Your task to perform on an android device: install app "Speedtest by Ookla" Image 0: 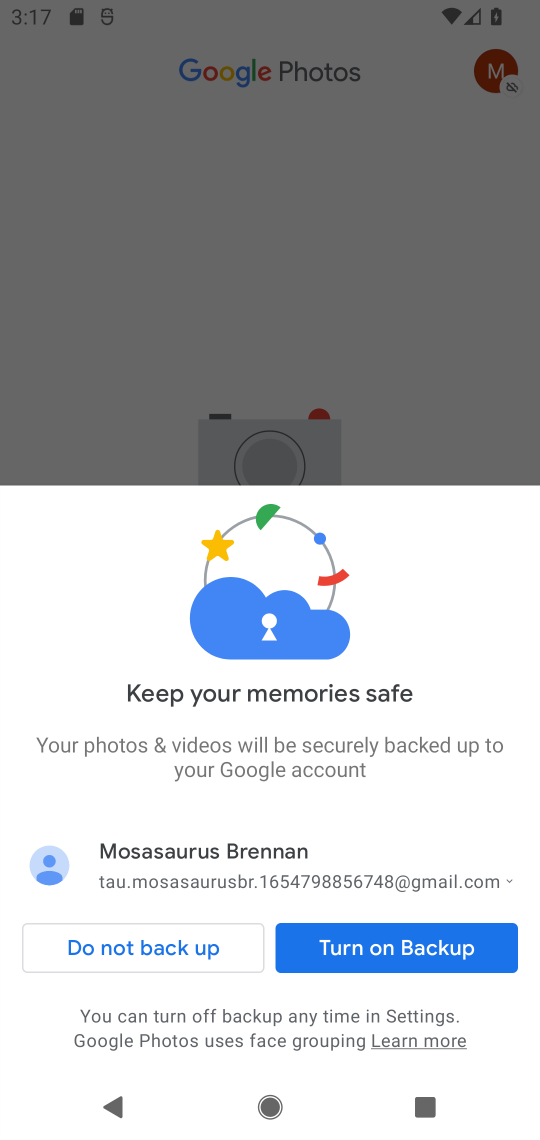
Step 0: press home button
Your task to perform on an android device: install app "Speedtest by Ookla" Image 1: 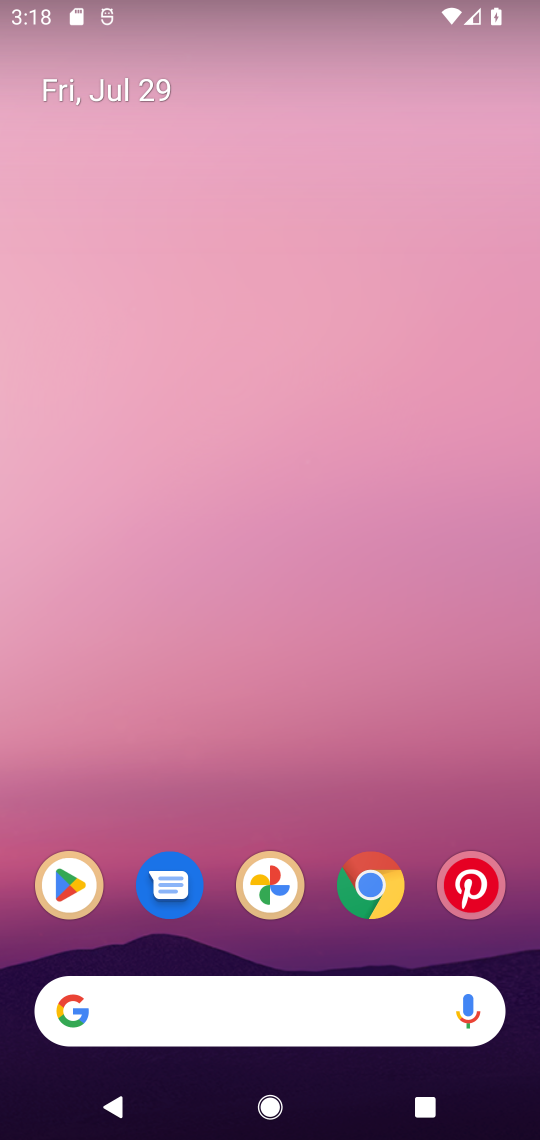
Step 1: click (49, 875)
Your task to perform on an android device: install app "Speedtest by Ookla" Image 2: 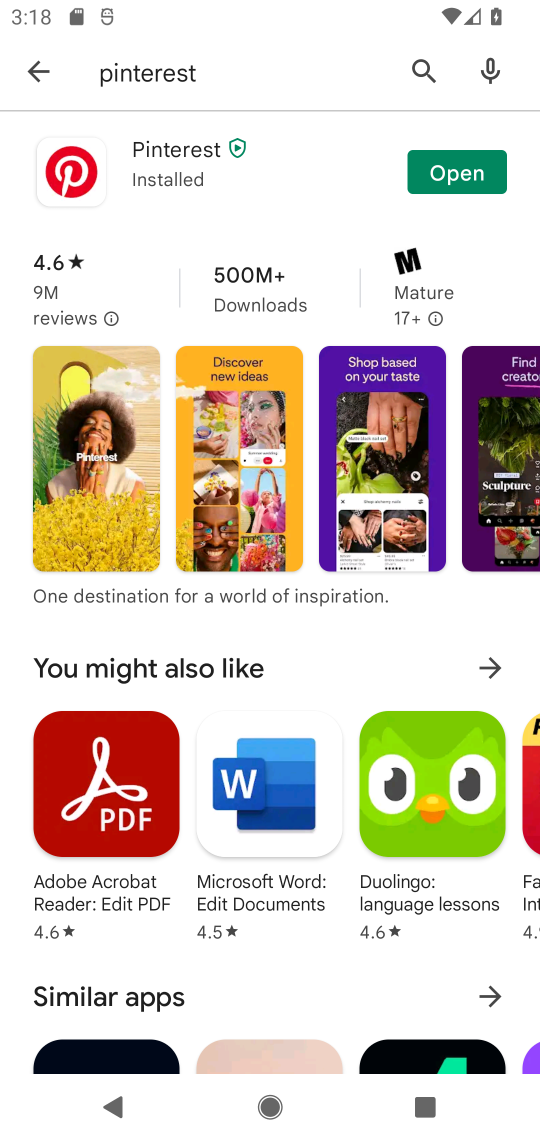
Step 2: click (419, 67)
Your task to perform on an android device: install app "Speedtest by Ookla" Image 3: 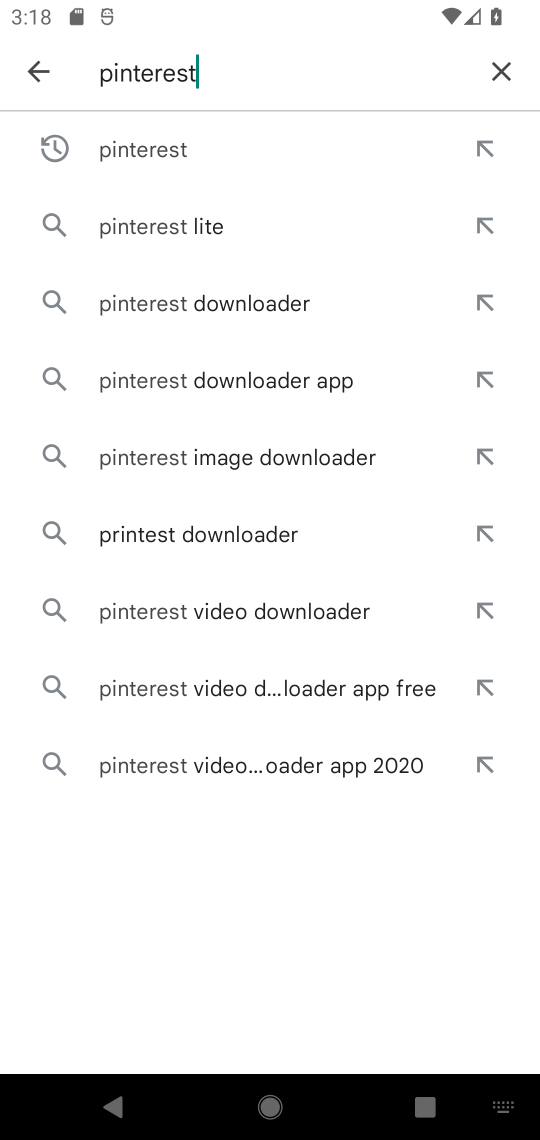
Step 3: click (502, 70)
Your task to perform on an android device: install app "Speedtest by Ookla" Image 4: 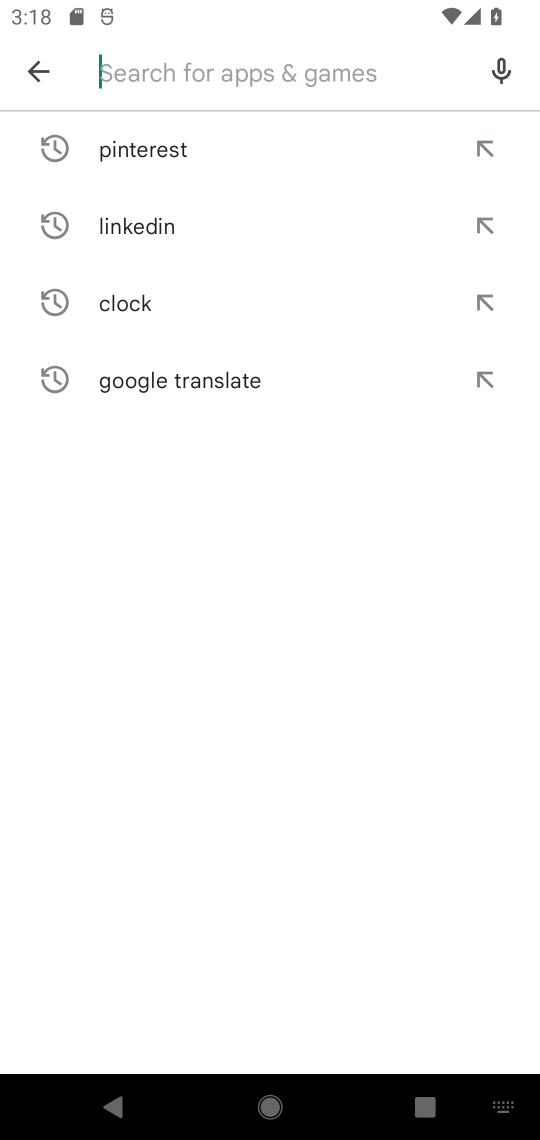
Step 4: click (411, 84)
Your task to perform on an android device: install app "Speedtest by Ookla" Image 5: 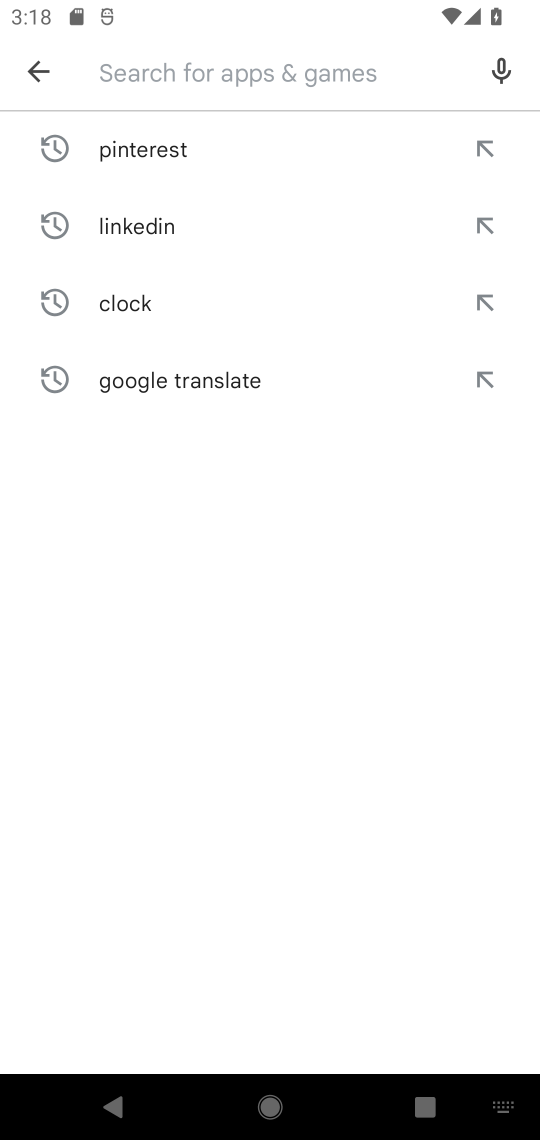
Step 5: type "Speedtest by Ookla"
Your task to perform on an android device: install app "Speedtest by Ookla" Image 6: 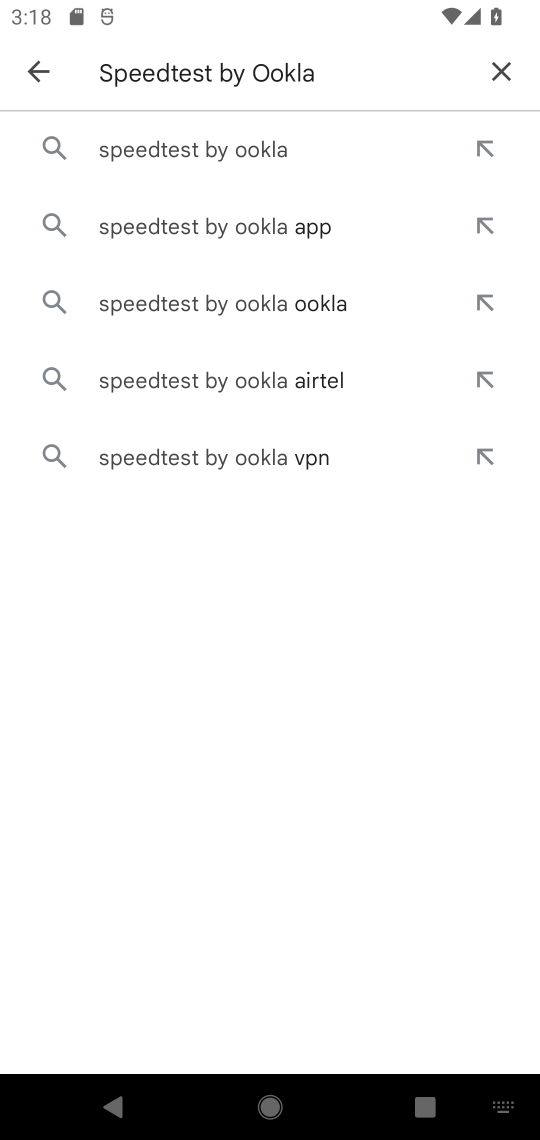
Step 6: click (256, 156)
Your task to perform on an android device: install app "Speedtest by Ookla" Image 7: 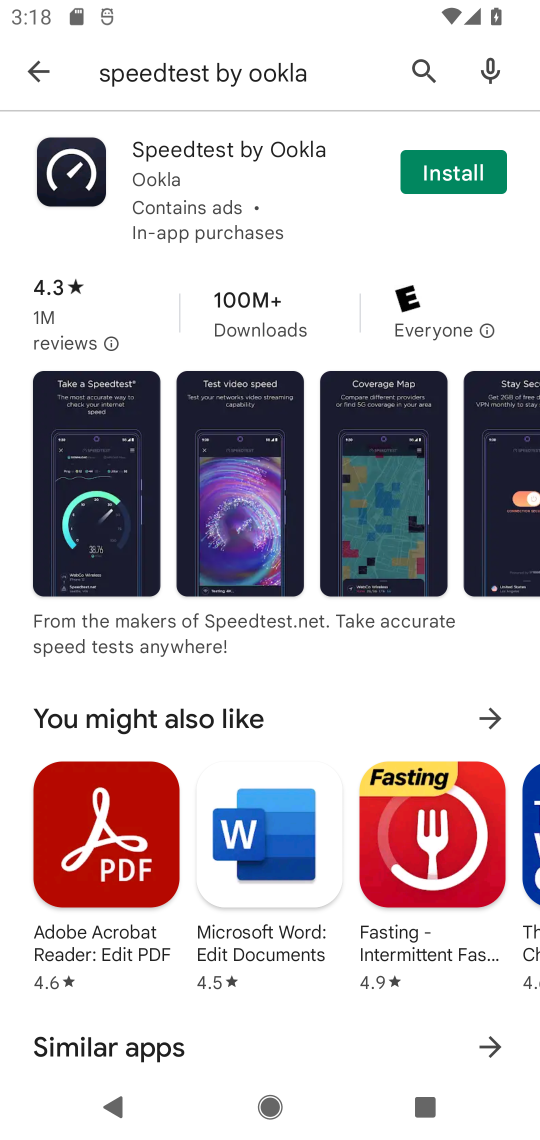
Step 7: click (441, 179)
Your task to perform on an android device: install app "Speedtest by Ookla" Image 8: 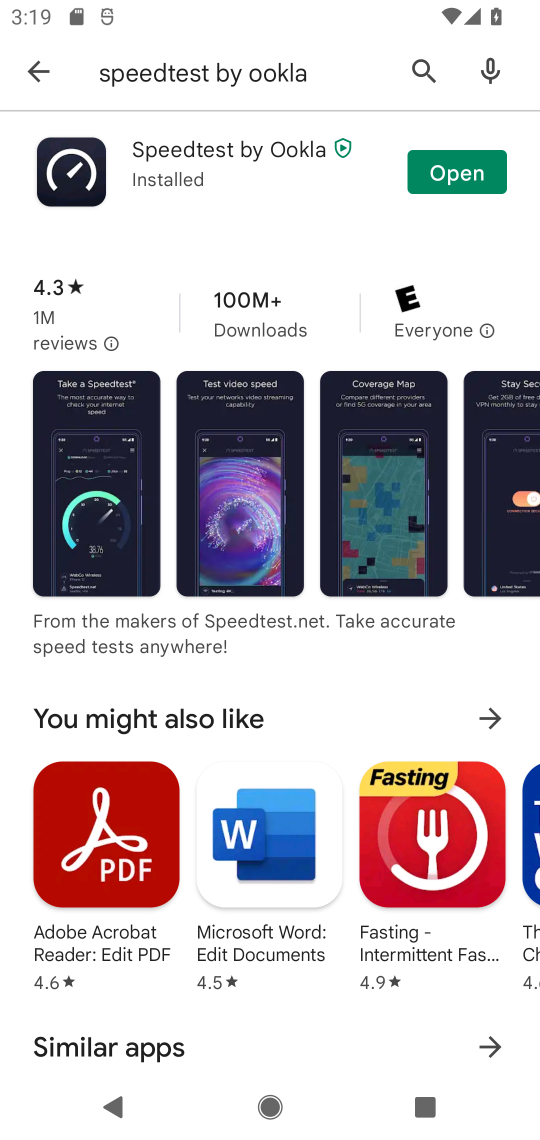
Step 8: task complete